Your task to perform on an android device: Open notification settings Image 0: 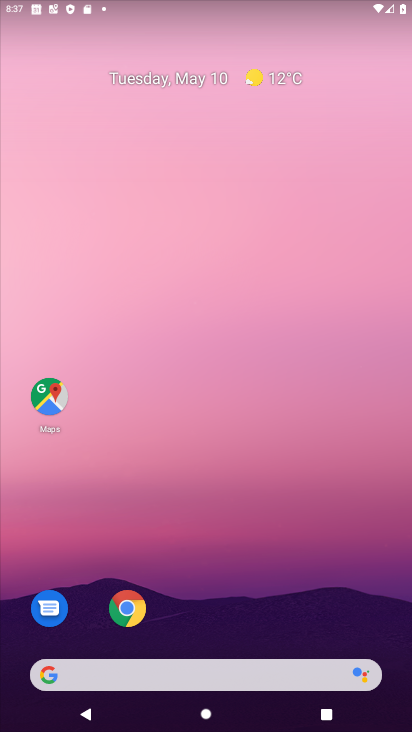
Step 0: drag from (208, 667) to (192, 218)
Your task to perform on an android device: Open notification settings Image 1: 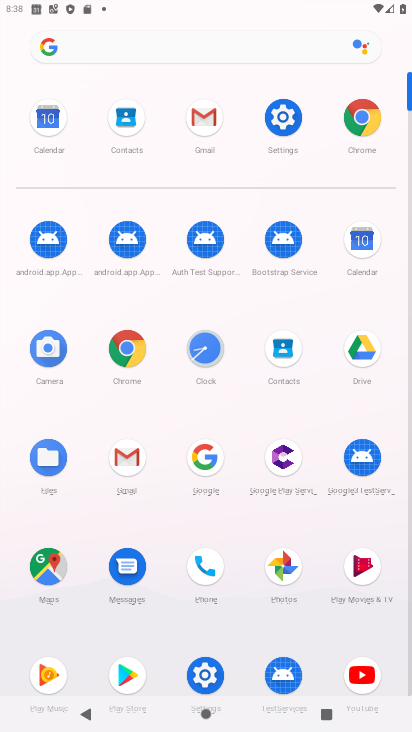
Step 1: click (294, 119)
Your task to perform on an android device: Open notification settings Image 2: 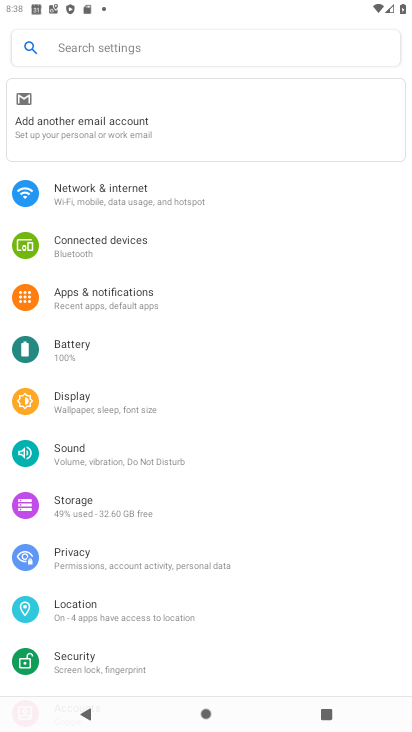
Step 2: click (130, 299)
Your task to perform on an android device: Open notification settings Image 3: 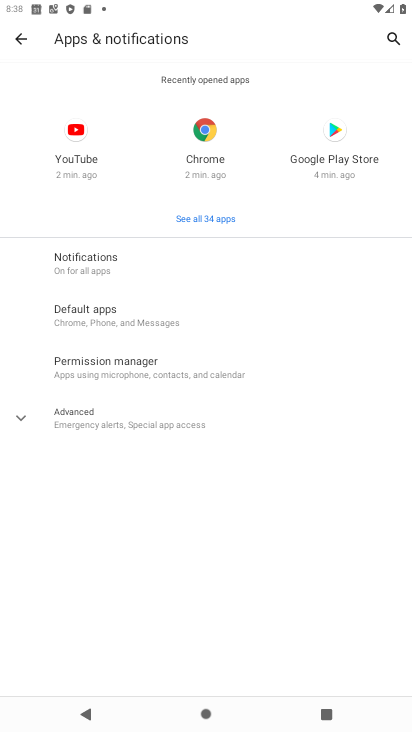
Step 3: task complete